Your task to perform on an android device: set default search engine in the chrome app Image 0: 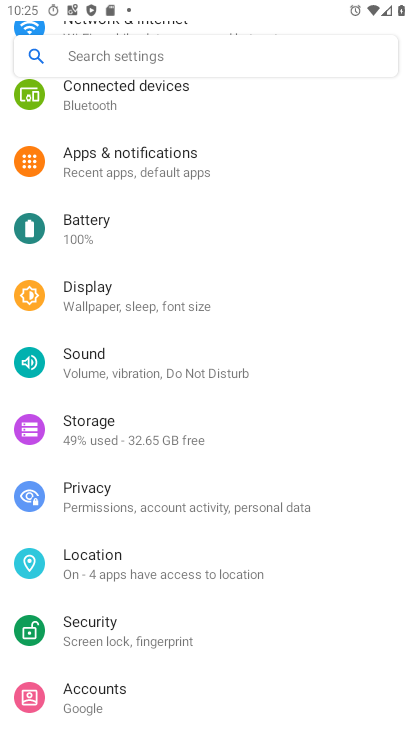
Step 0: press home button
Your task to perform on an android device: set default search engine in the chrome app Image 1: 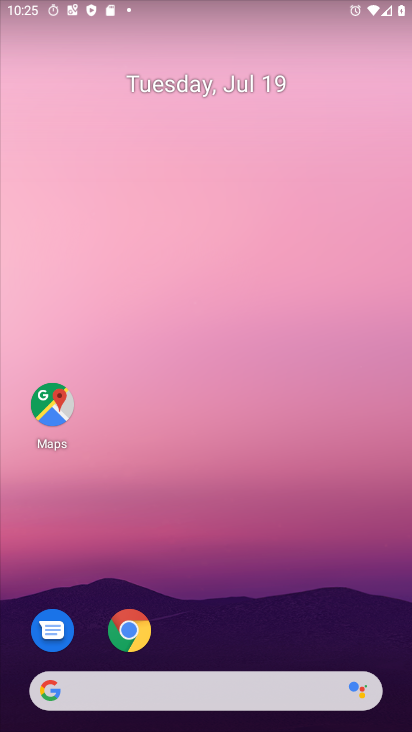
Step 1: click (133, 633)
Your task to perform on an android device: set default search engine in the chrome app Image 2: 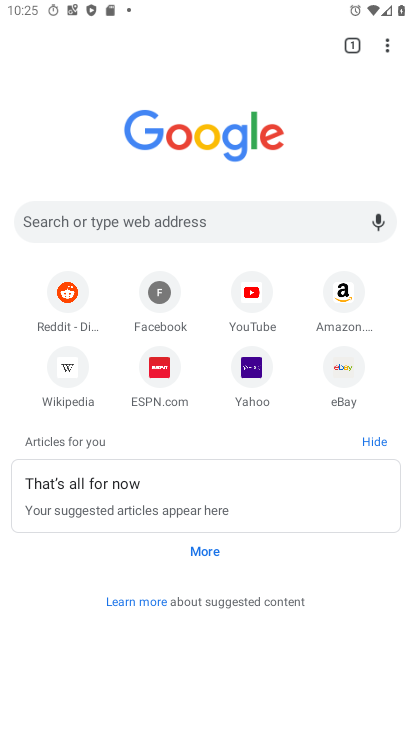
Step 2: click (389, 44)
Your task to perform on an android device: set default search engine in the chrome app Image 3: 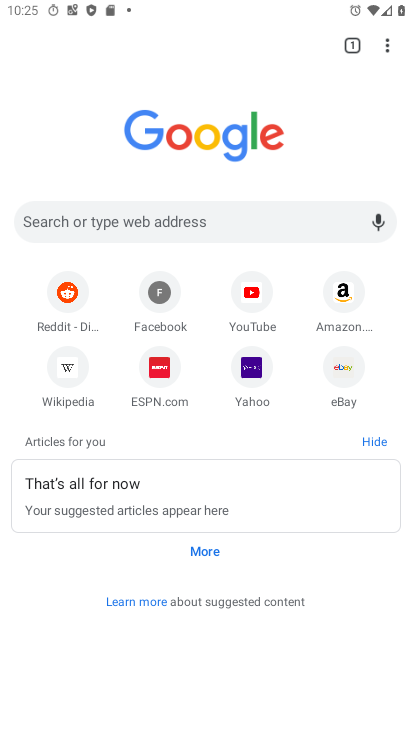
Step 3: drag from (389, 44) to (248, 386)
Your task to perform on an android device: set default search engine in the chrome app Image 4: 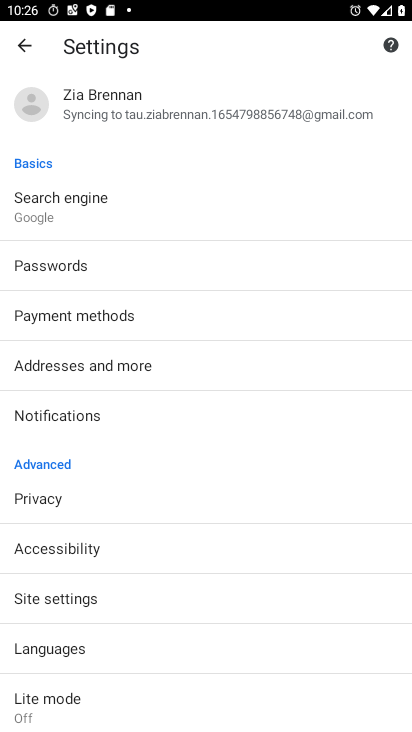
Step 4: click (62, 213)
Your task to perform on an android device: set default search engine in the chrome app Image 5: 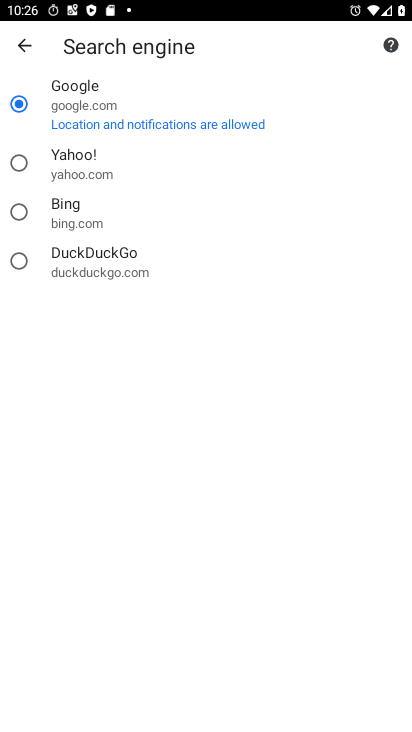
Step 5: task complete